Your task to perform on an android device: Open Chrome and go to the settings page Image 0: 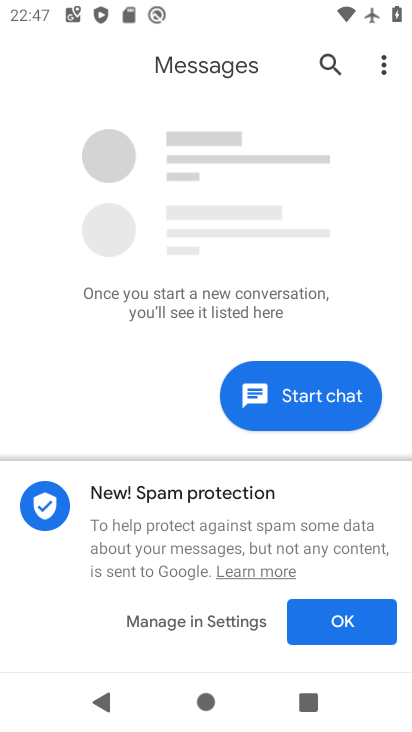
Step 0: press home button
Your task to perform on an android device: Open Chrome and go to the settings page Image 1: 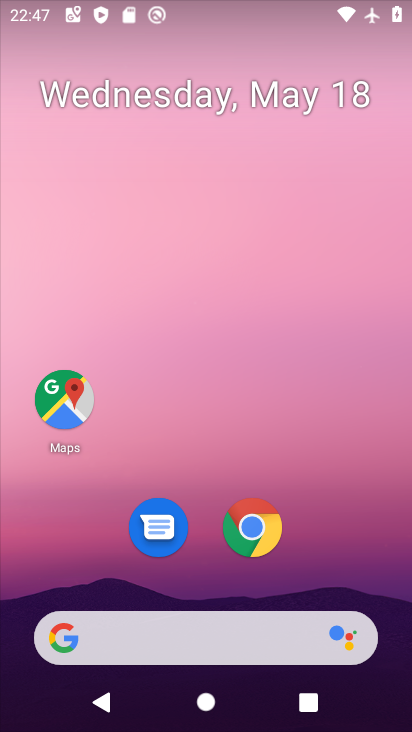
Step 1: click (255, 555)
Your task to perform on an android device: Open Chrome and go to the settings page Image 2: 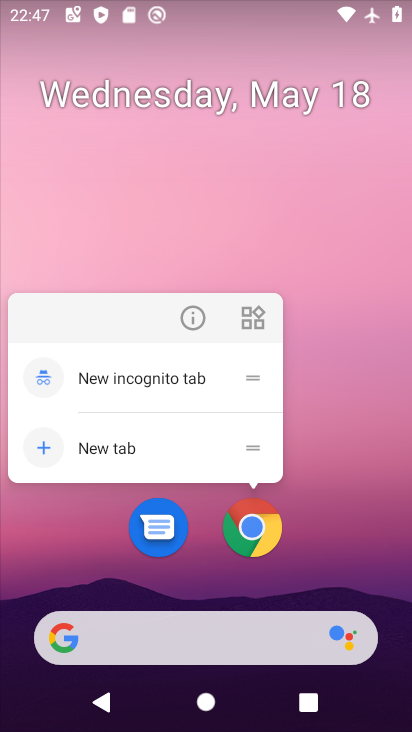
Step 2: click (255, 555)
Your task to perform on an android device: Open Chrome and go to the settings page Image 3: 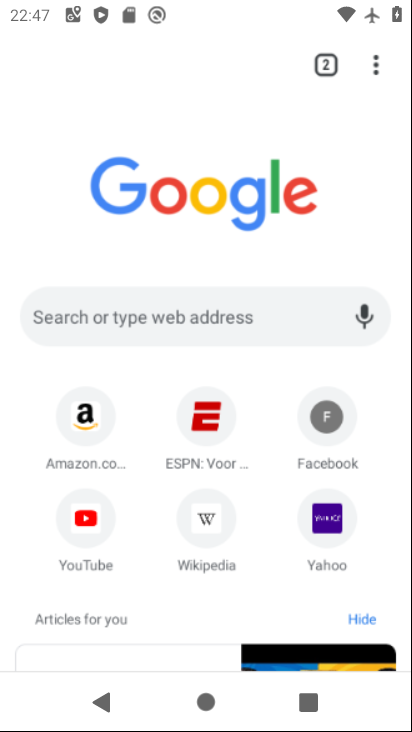
Step 3: click (251, 522)
Your task to perform on an android device: Open Chrome and go to the settings page Image 4: 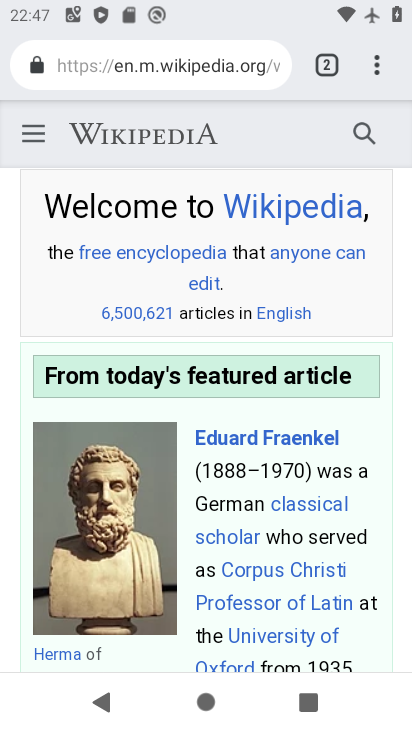
Step 4: click (96, 706)
Your task to perform on an android device: Open Chrome and go to the settings page Image 5: 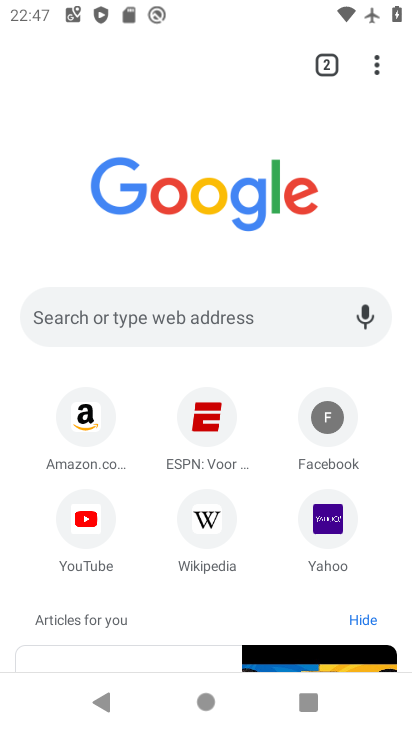
Step 5: click (381, 68)
Your task to perform on an android device: Open Chrome and go to the settings page Image 6: 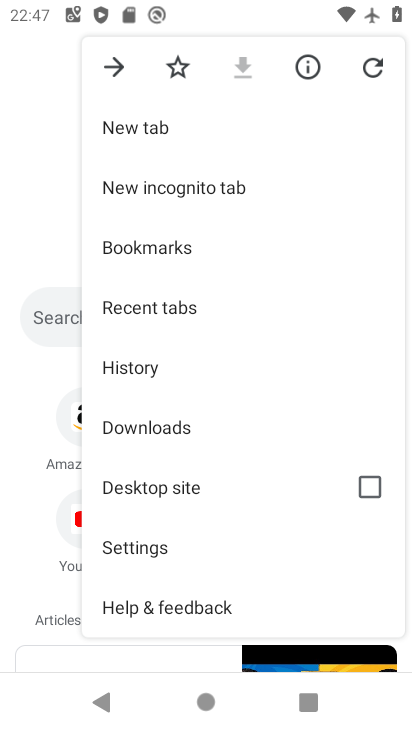
Step 6: click (220, 559)
Your task to perform on an android device: Open Chrome and go to the settings page Image 7: 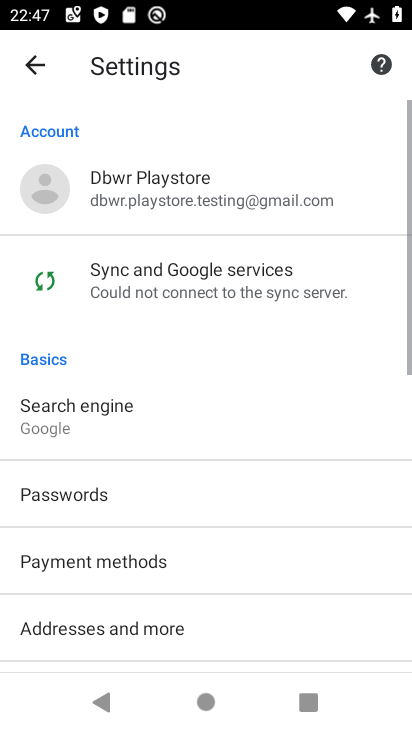
Step 7: task complete